Your task to perform on an android device: change keyboard looks Image 0: 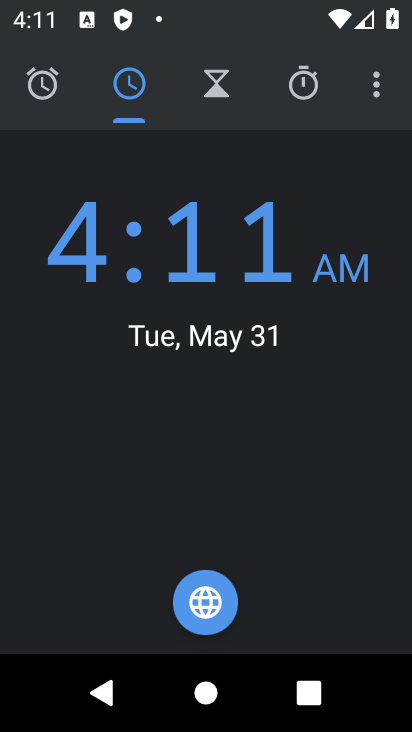
Step 0: press home button
Your task to perform on an android device: change keyboard looks Image 1: 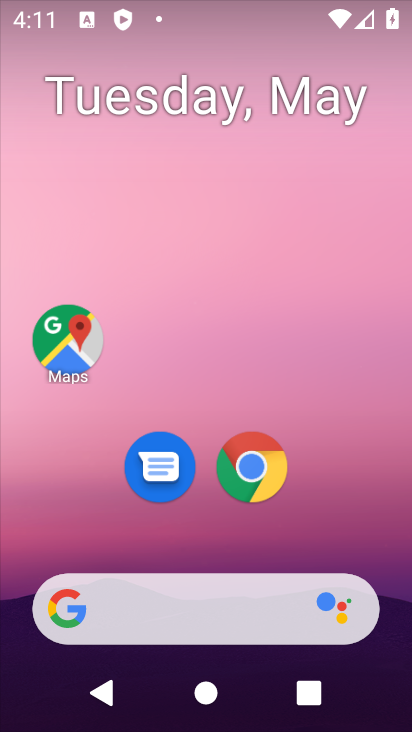
Step 1: drag from (335, 527) to (348, 150)
Your task to perform on an android device: change keyboard looks Image 2: 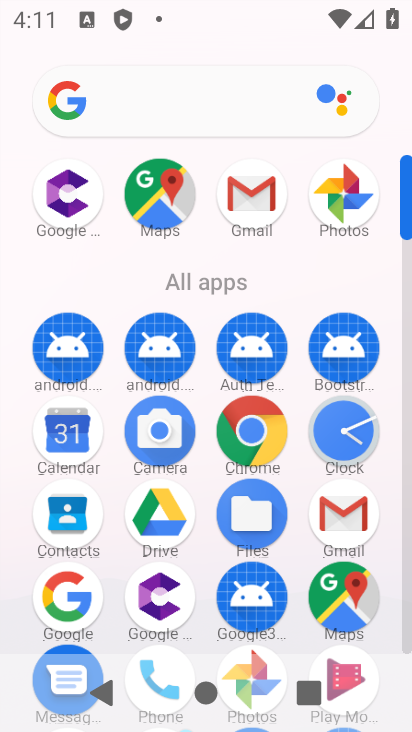
Step 2: drag from (109, 629) to (110, 253)
Your task to perform on an android device: change keyboard looks Image 3: 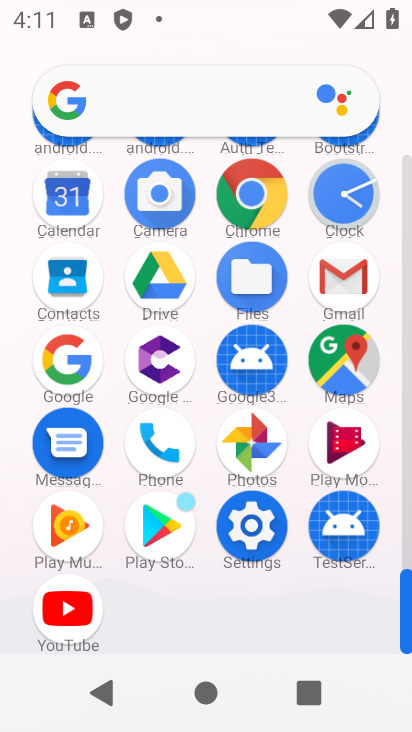
Step 3: click (250, 514)
Your task to perform on an android device: change keyboard looks Image 4: 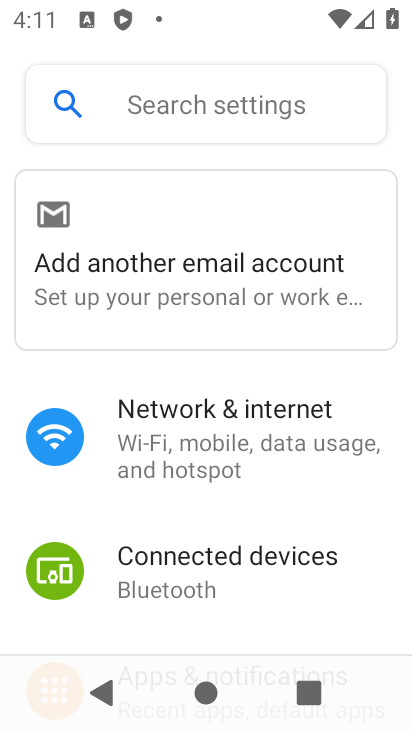
Step 4: drag from (366, 592) to (344, 193)
Your task to perform on an android device: change keyboard looks Image 5: 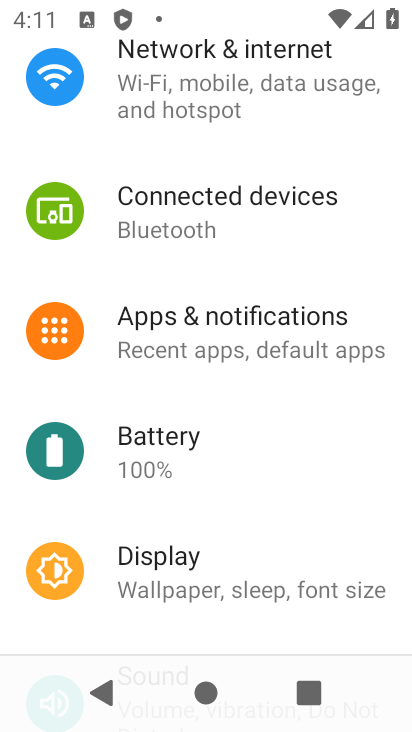
Step 5: drag from (352, 535) to (319, 33)
Your task to perform on an android device: change keyboard looks Image 6: 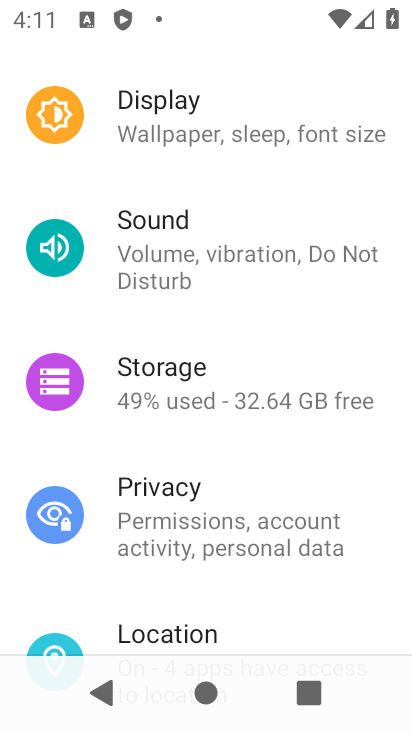
Step 6: drag from (380, 548) to (315, 15)
Your task to perform on an android device: change keyboard looks Image 7: 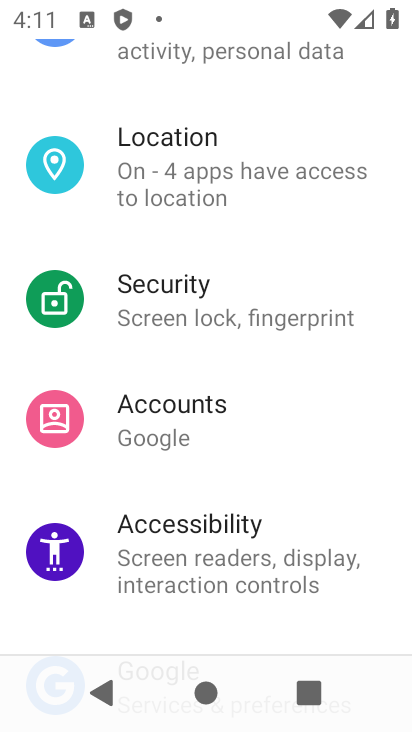
Step 7: drag from (370, 499) to (359, 210)
Your task to perform on an android device: change keyboard looks Image 8: 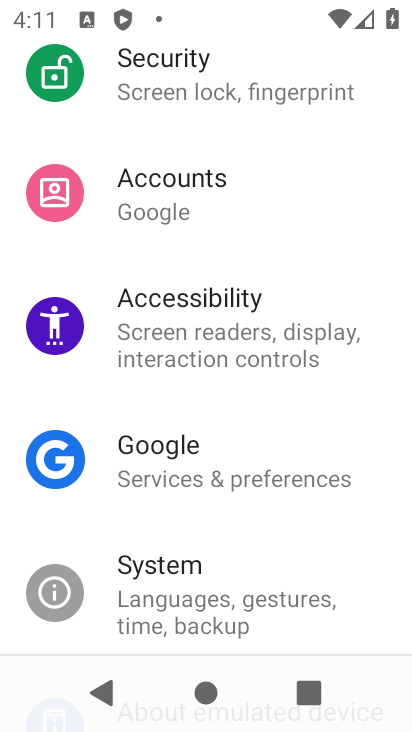
Step 8: click (239, 600)
Your task to perform on an android device: change keyboard looks Image 9: 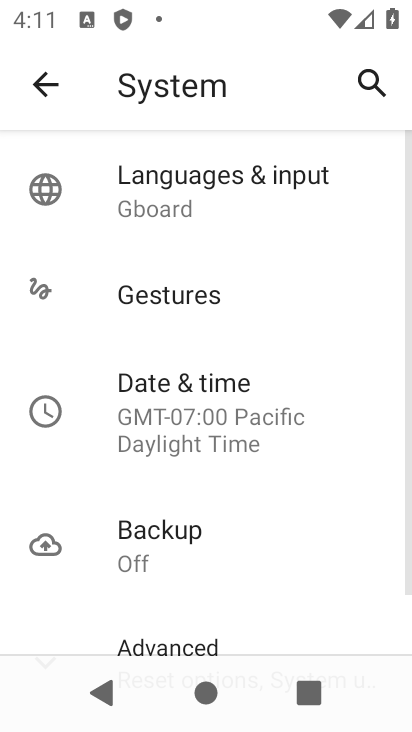
Step 9: click (191, 187)
Your task to perform on an android device: change keyboard looks Image 10: 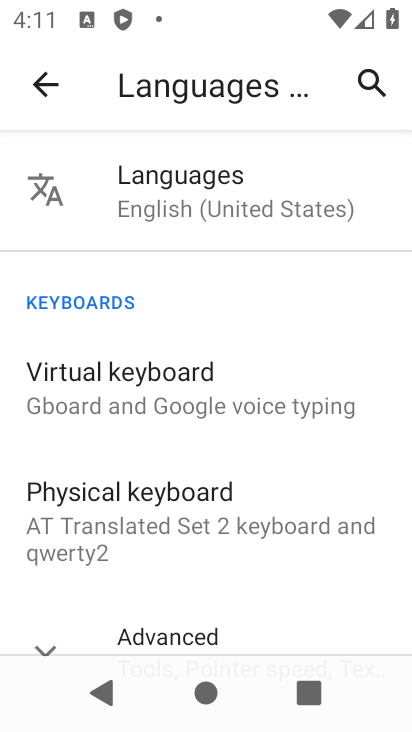
Step 10: click (153, 375)
Your task to perform on an android device: change keyboard looks Image 11: 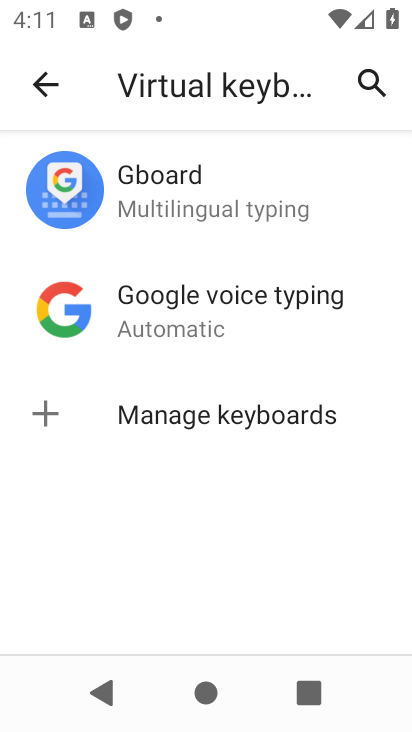
Step 11: click (179, 185)
Your task to perform on an android device: change keyboard looks Image 12: 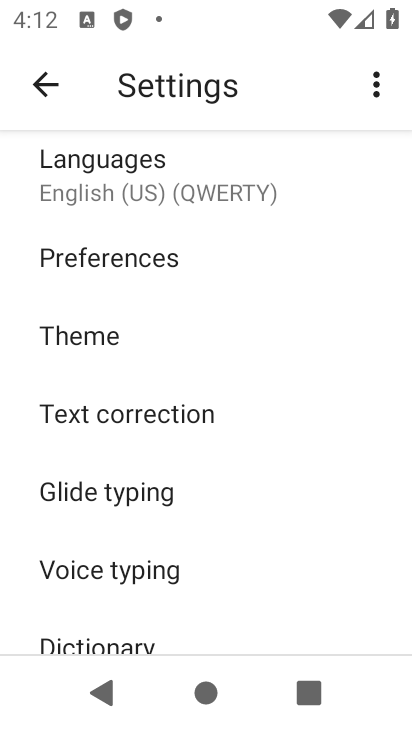
Step 12: click (95, 333)
Your task to perform on an android device: change keyboard looks Image 13: 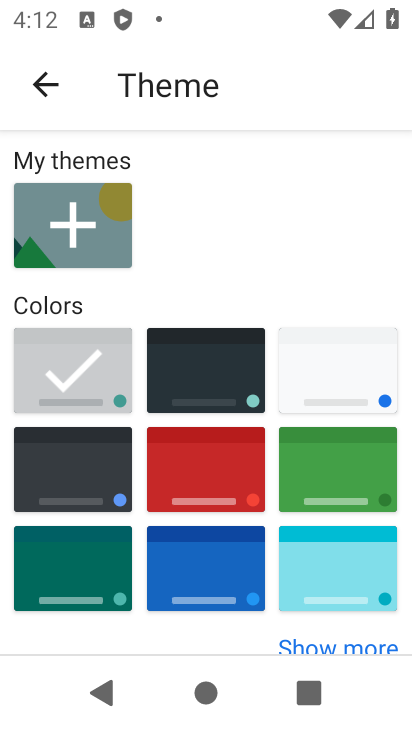
Step 13: click (252, 503)
Your task to perform on an android device: change keyboard looks Image 14: 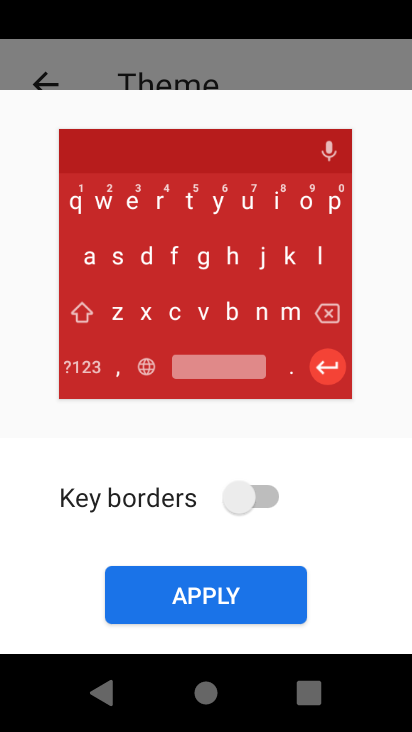
Step 14: click (228, 598)
Your task to perform on an android device: change keyboard looks Image 15: 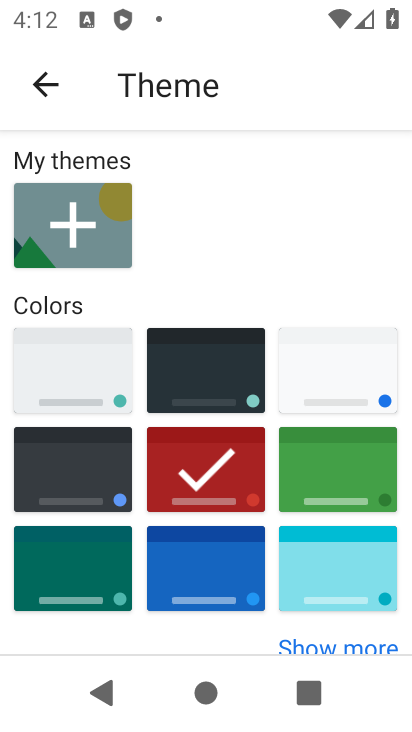
Step 15: task complete